Your task to perform on an android device: Turn on the flashlight Image 0: 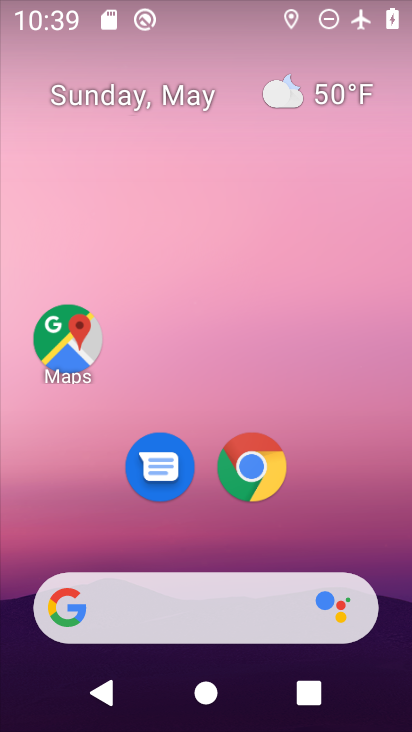
Step 0: drag from (211, 533) to (211, 87)
Your task to perform on an android device: Turn on the flashlight Image 1: 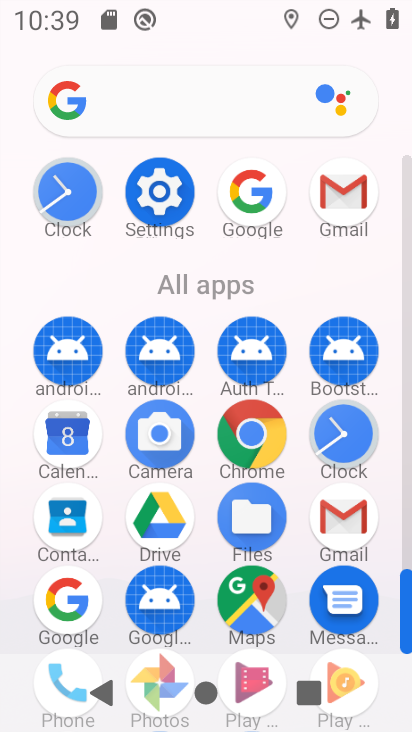
Step 1: click (174, 199)
Your task to perform on an android device: Turn on the flashlight Image 2: 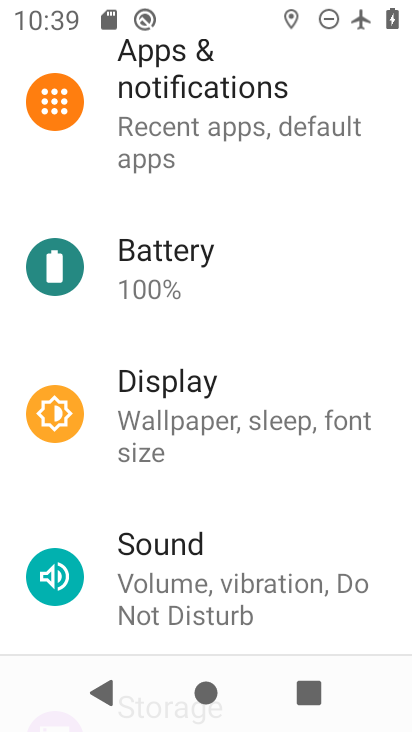
Step 2: click (228, 404)
Your task to perform on an android device: Turn on the flashlight Image 3: 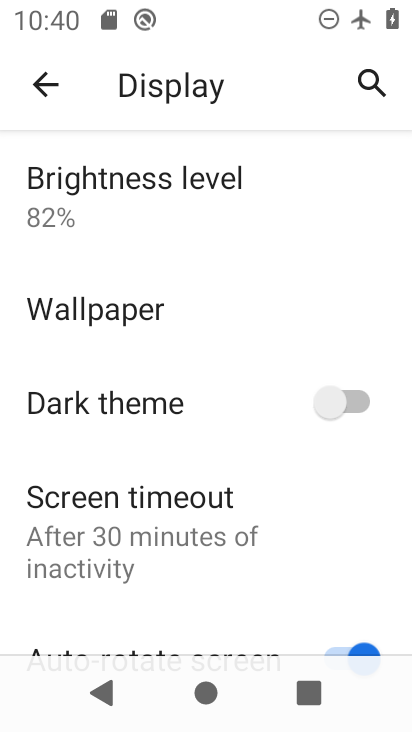
Step 3: task complete